Your task to perform on an android device: Go to Google Image 0: 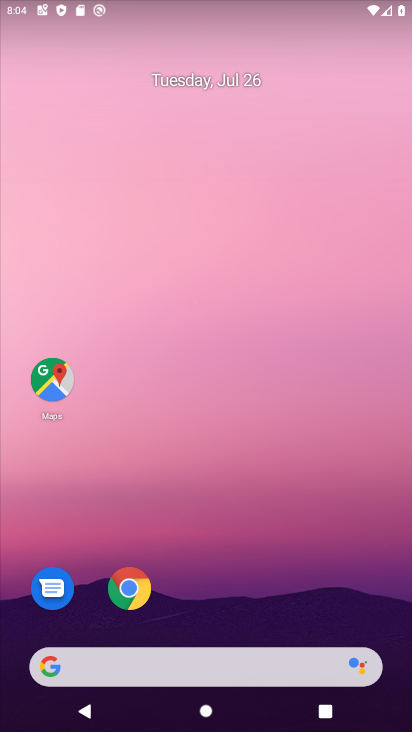
Step 0: click (202, 664)
Your task to perform on an android device: Go to Google Image 1: 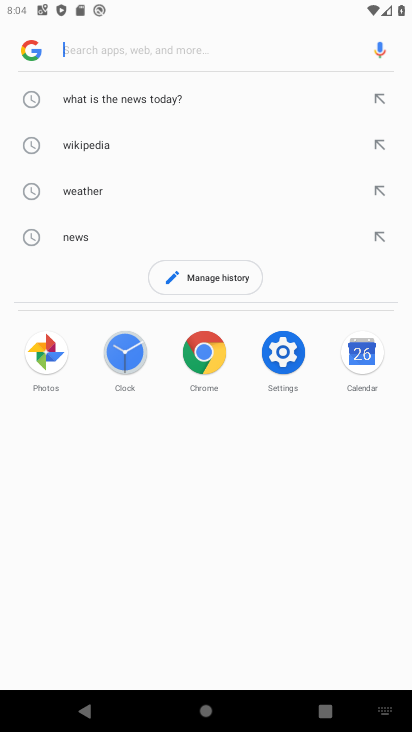
Step 1: task complete